Your task to perform on an android device: visit the assistant section in the google photos Image 0: 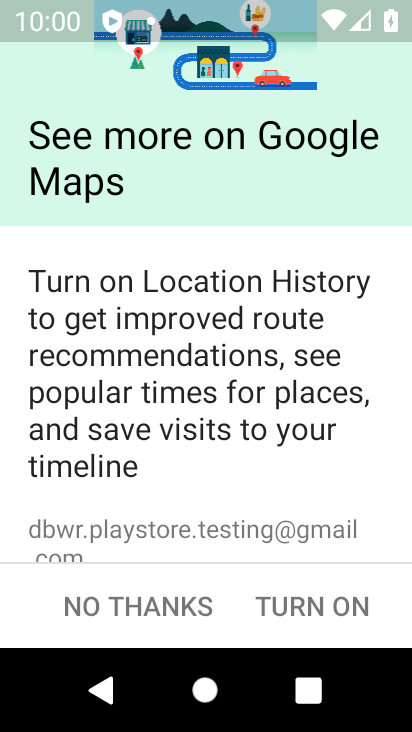
Step 0: press home button
Your task to perform on an android device: visit the assistant section in the google photos Image 1: 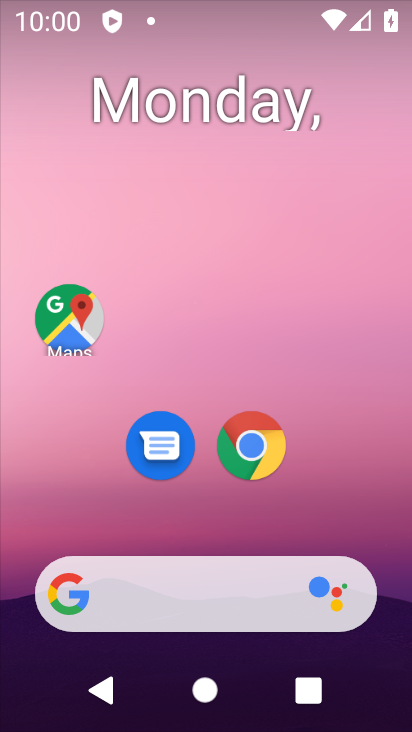
Step 1: drag from (314, 511) to (296, 152)
Your task to perform on an android device: visit the assistant section in the google photos Image 2: 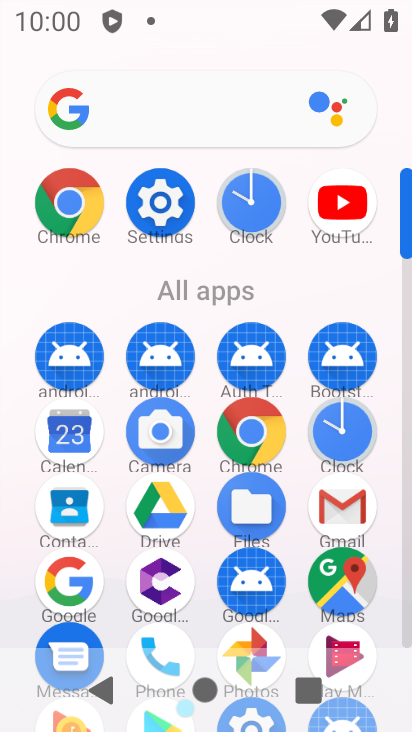
Step 2: click (253, 646)
Your task to perform on an android device: visit the assistant section in the google photos Image 3: 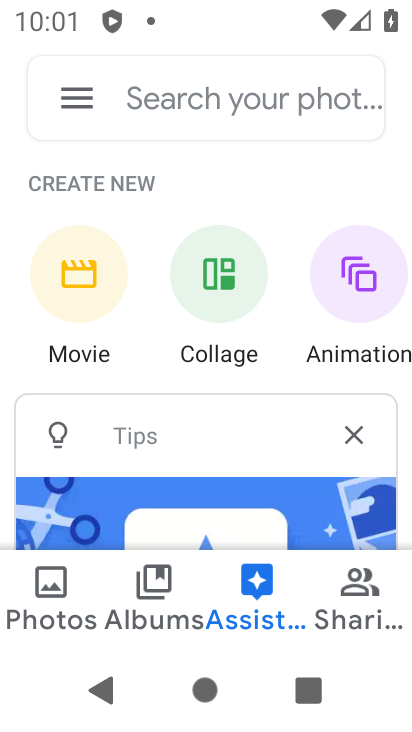
Step 3: task complete